Your task to perform on an android device: empty trash in the gmail app Image 0: 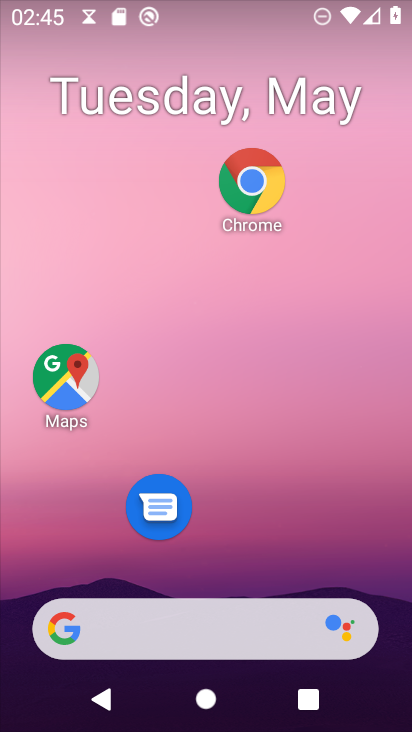
Step 0: drag from (304, 463) to (312, 306)
Your task to perform on an android device: empty trash in the gmail app Image 1: 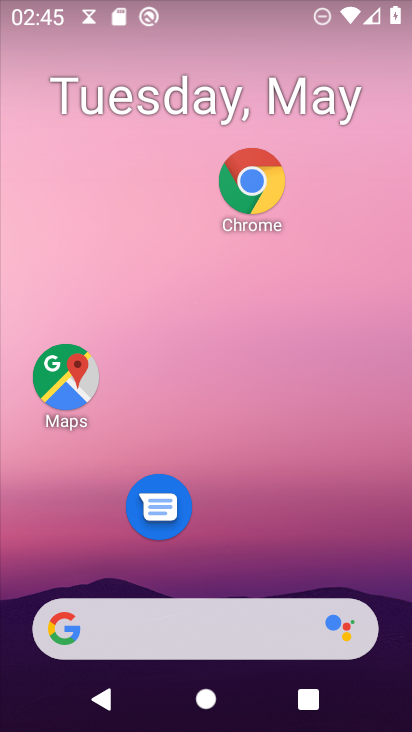
Step 1: click (219, 630)
Your task to perform on an android device: empty trash in the gmail app Image 2: 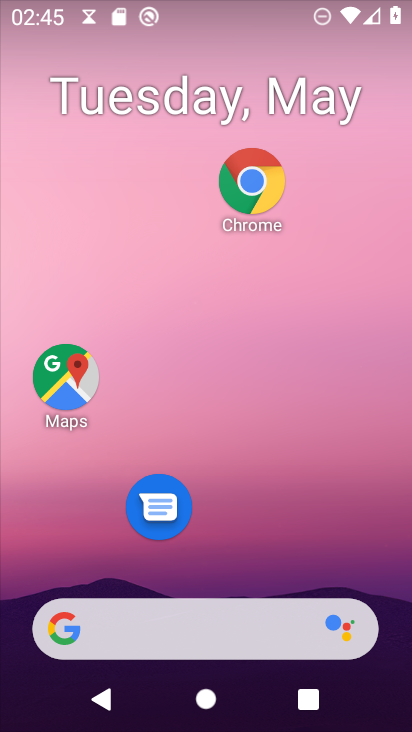
Step 2: drag from (201, 567) to (245, 259)
Your task to perform on an android device: empty trash in the gmail app Image 3: 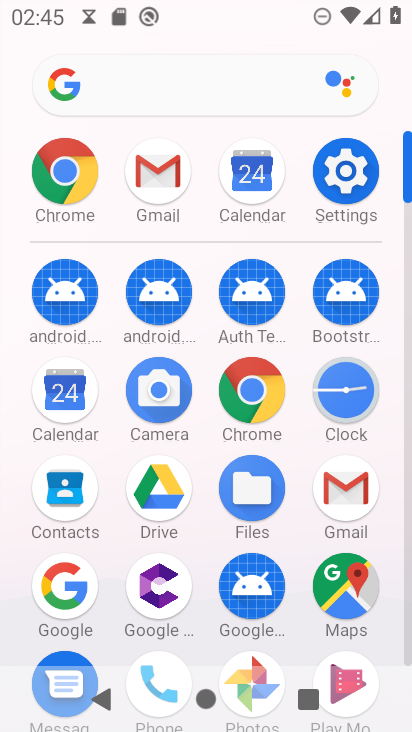
Step 3: drag from (206, 596) to (252, 331)
Your task to perform on an android device: empty trash in the gmail app Image 4: 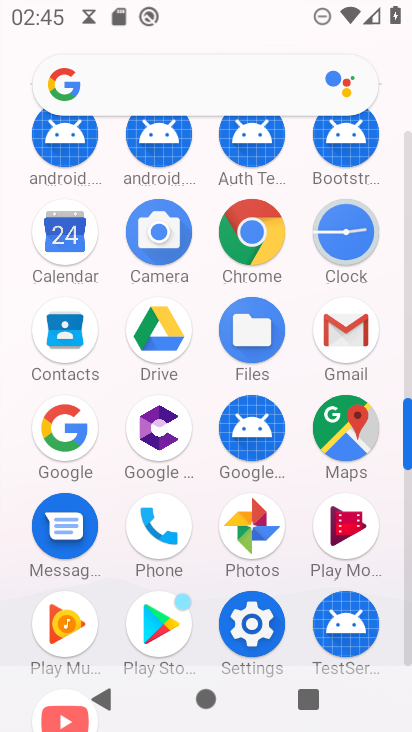
Step 4: click (259, 508)
Your task to perform on an android device: empty trash in the gmail app Image 5: 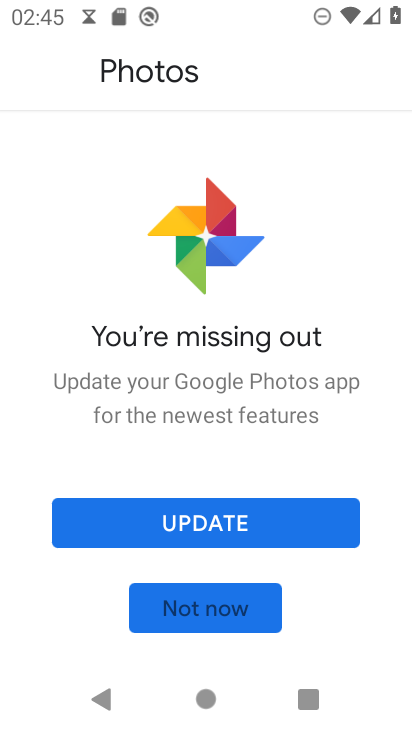
Step 5: press home button
Your task to perform on an android device: empty trash in the gmail app Image 6: 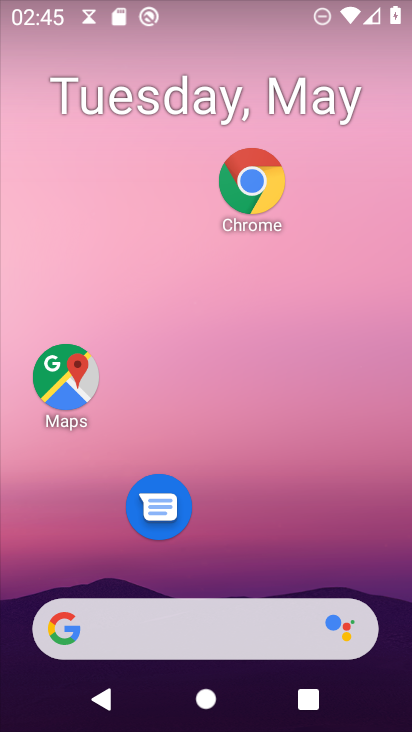
Step 6: click (268, 572)
Your task to perform on an android device: empty trash in the gmail app Image 7: 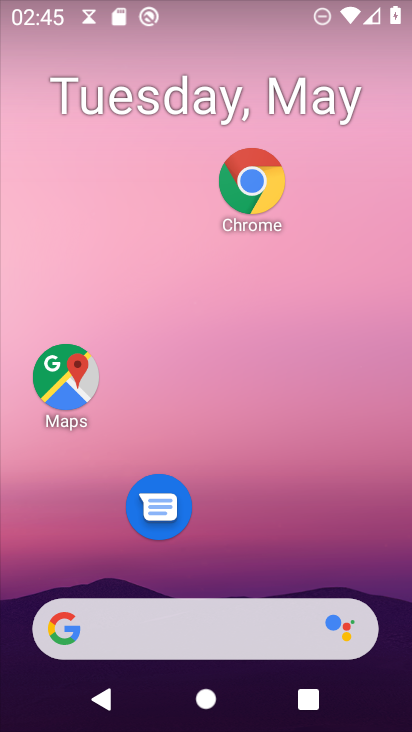
Step 7: drag from (280, 526) to (317, 227)
Your task to perform on an android device: empty trash in the gmail app Image 8: 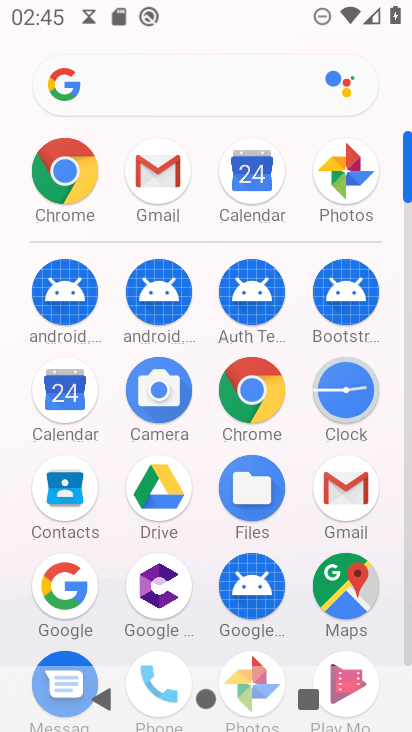
Step 8: click (341, 483)
Your task to perform on an android device: empty trash in the gmail app Image 9: 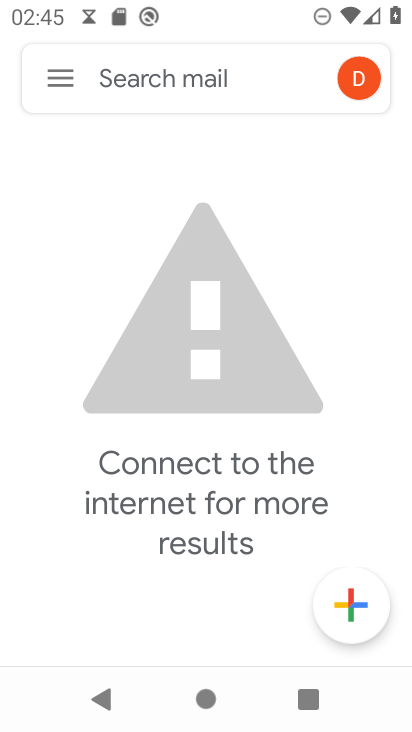
Step 9: click (59, 79)
Your task to perform on an android device: empty trash in the gmail app Image 10: 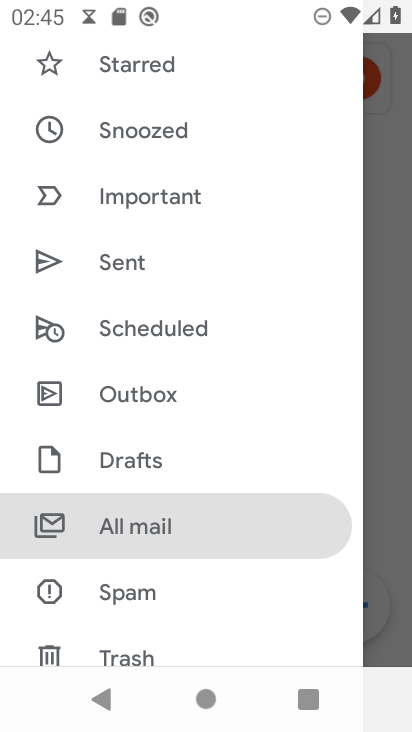
Step 10: drag from (171, 577) to (216, 331)
Your task to perform on an android device: empty trash in the gmail app Image 11: 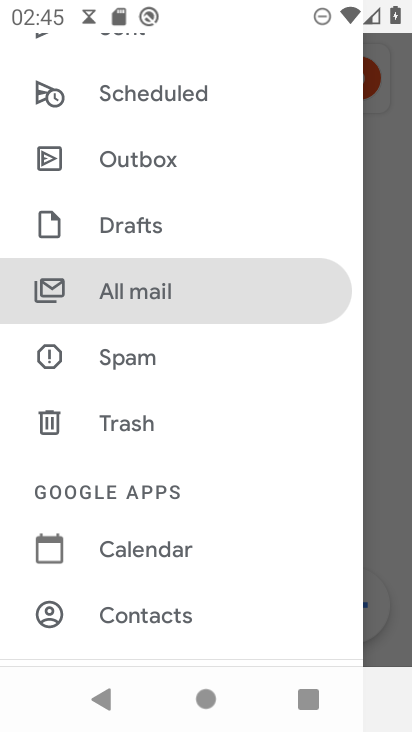
Step 11: click (141, 423)
Your task to perform on an android device: empty trash in the gmail app Image 12: 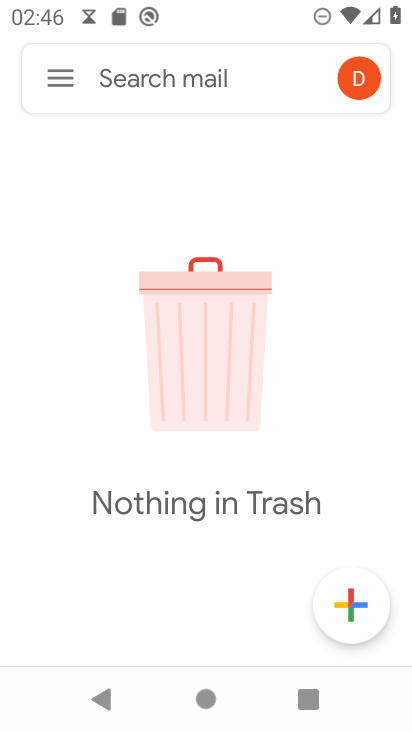
Step 12: task complete